Your task to perform on an android device: Is it going to rain today? Image 0: 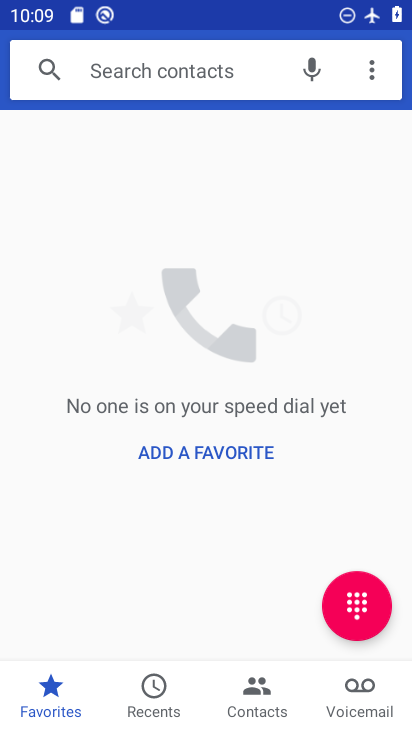
Step 0: press home button
Your task to perform on an android device: Is it going to rain today? Image 1: 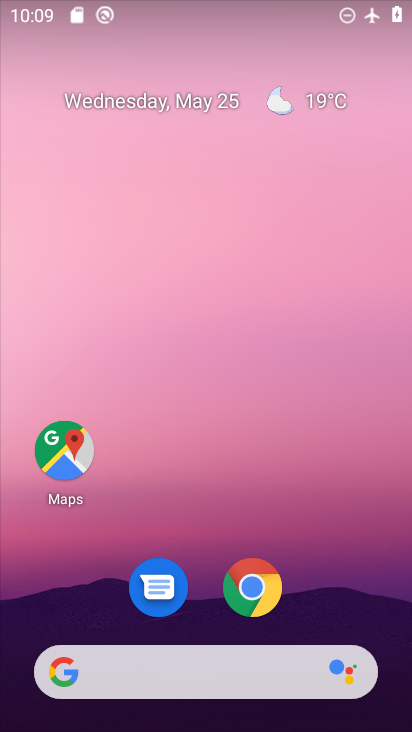
Step 1: click (317, 104)
Your task to perform on an android device: Is it going to rain today? Image 2: 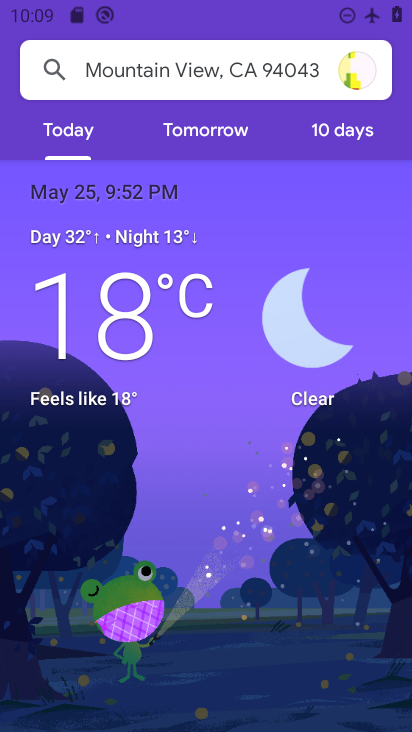
Step 2: task complete